Your task to perform on an android device: open device folders in google photos Image 0: 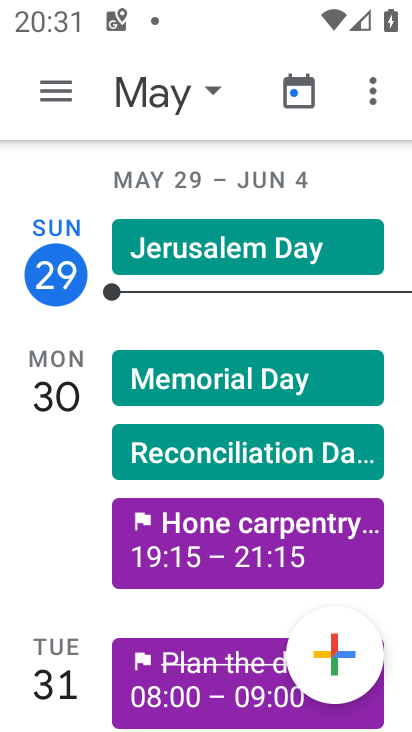
Step 0: press back button
Your task to perform on an android device: open device folders in google photos Image 1: 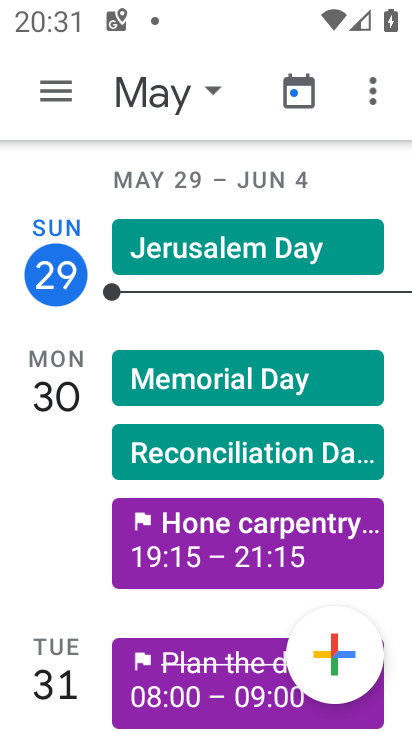
Step 1: press back button
Your task to perform on an android device: open device folders in google photos Image 2: 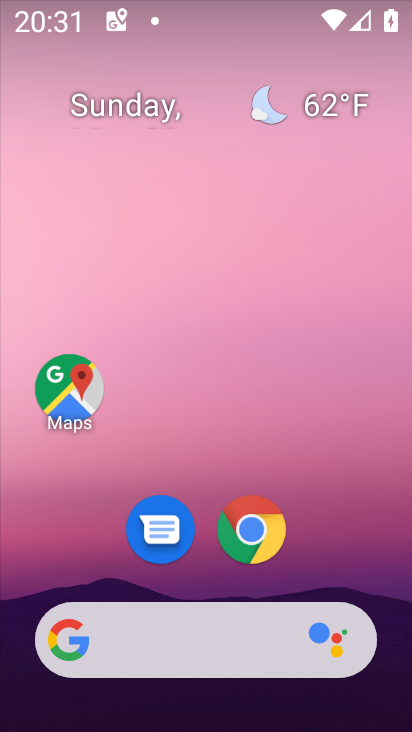
Step 2: drag from (252, 712) to (144, 218)
Your task to perform on an android device: open device folders in google photos Image 3: 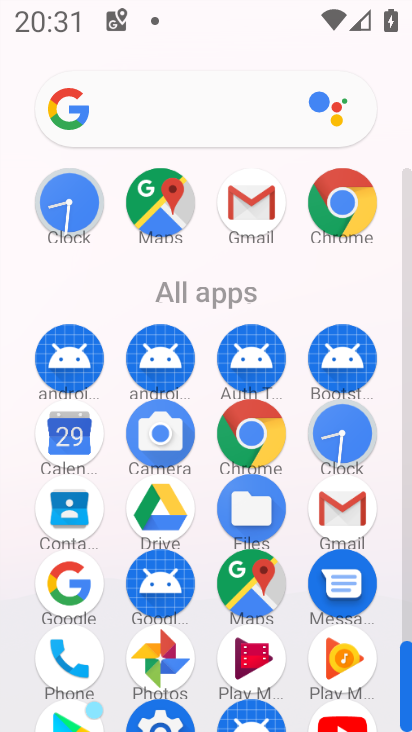
Step 3: click (150, 656)
Your task to perform on an android device: open device folders in google photos Image 4: 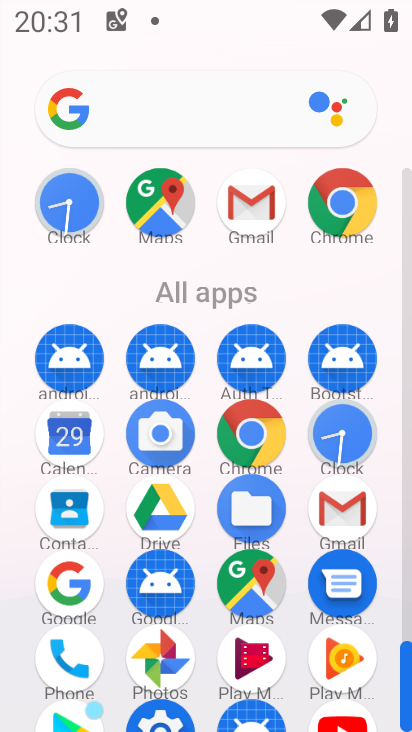
Step 4: click (150, 656)
Your task to perform on an android device: open device folders in google photos Image 5: 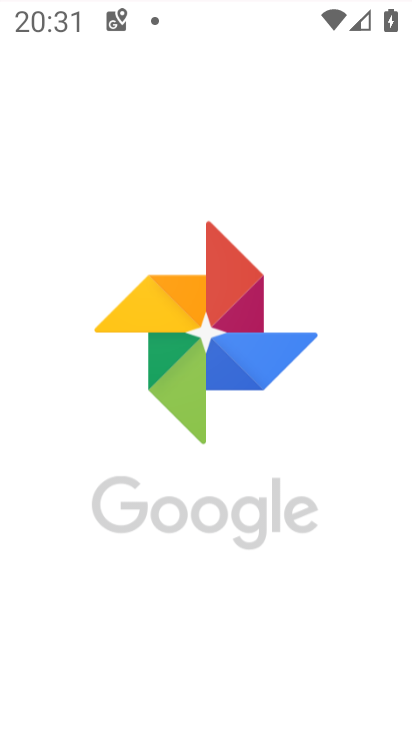
Step 5: click (152, 661)
Your task to perform on an android device: open device folders in google photos Image 6: 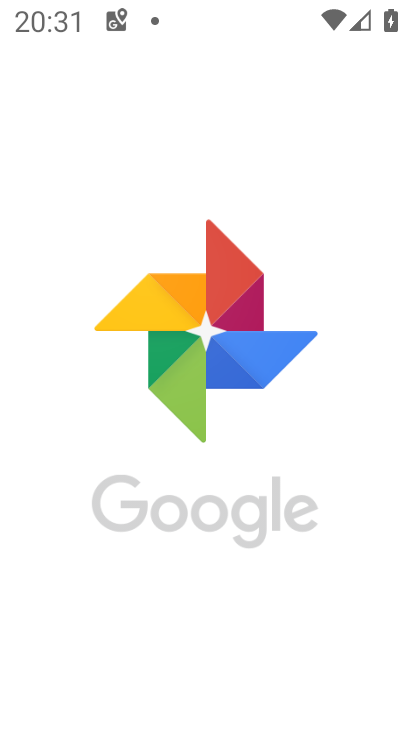
Step 6: click (154, 660)
Your task to perform on an android device: open device folders in google photos Image 7: 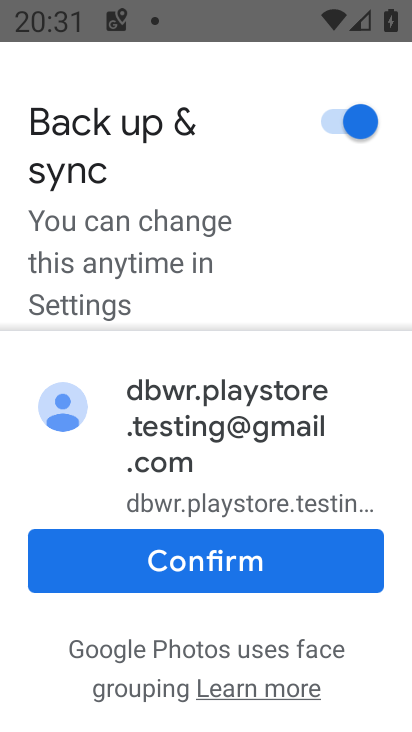
Step 7: click (232, 567)
Your task to perform on an android device: open device folders in google photos Image 8: 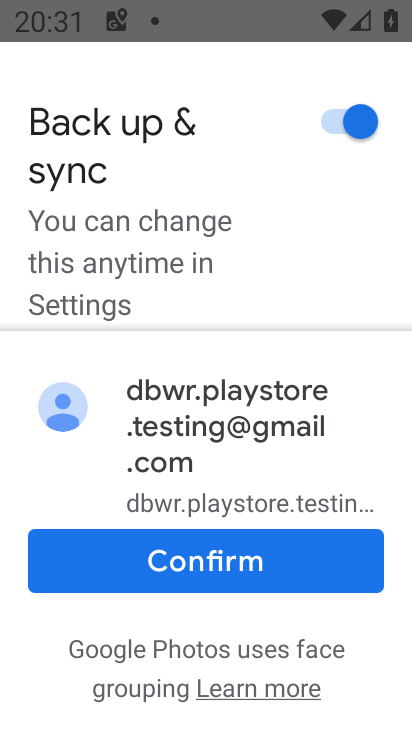
Step 8: click (232, 567)
Your task to perform on an android device: open device folders in google photos Image 9: 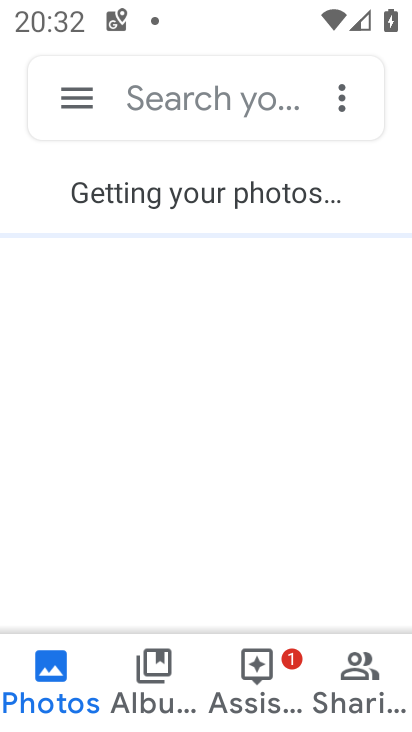
Step 9: click (85, 94)
Your task to perform on an android device: open device folders in google photos Image 10: 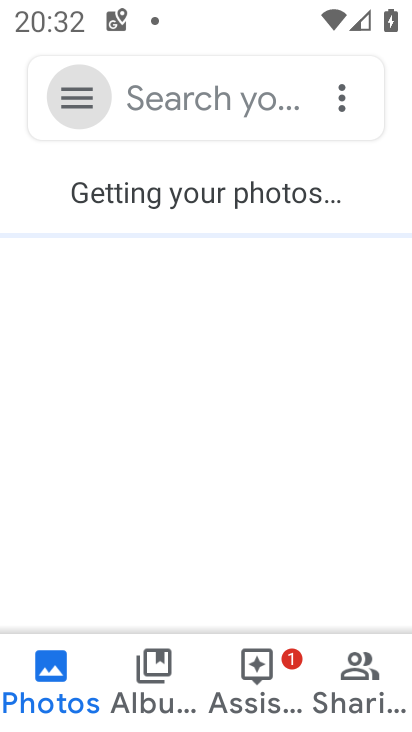
Step 10: click (84, 94)
Your task to perform on an android device: open device folders in google photos Image 11: 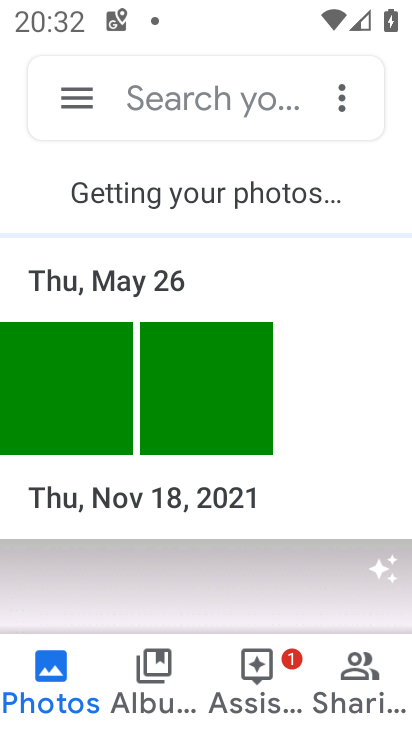
Step 11: click (76, 102)
Your task to perform on an android device: open device folders in google photos Image 12: 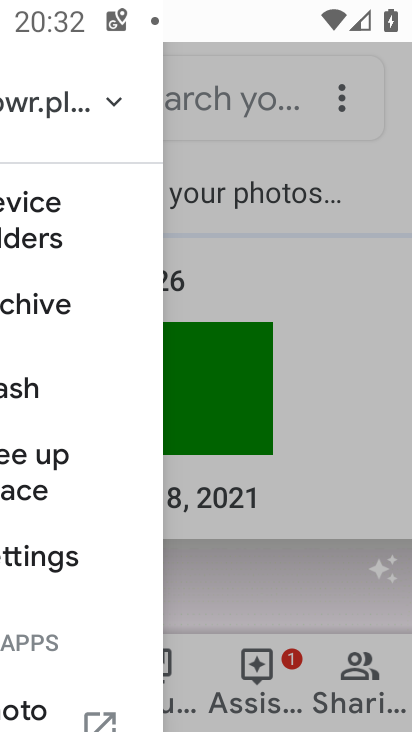
Step 12: click (76, 102)
Your task to perform on an android device: open device folders in google photos Image 13: 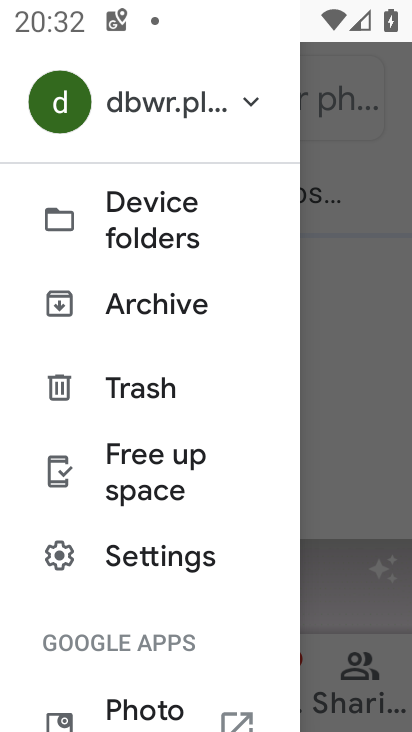
Step 13: click (77, 101)
Your task to perform on an android device: open device folders in google photos Image 14: 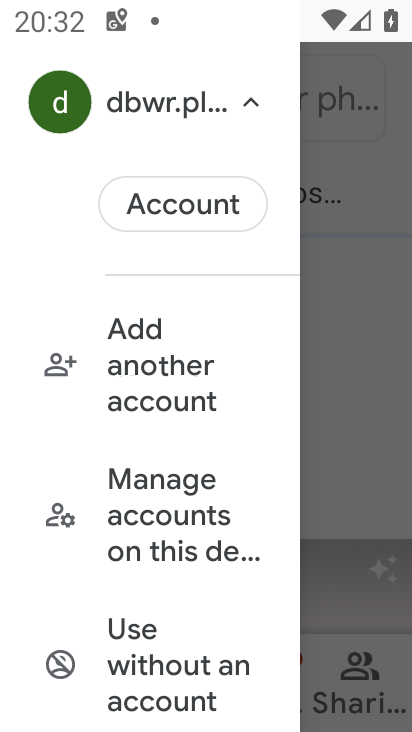
Step 14: drag from (153, 626) to (130, 350)
Your task to perform on an android device: open device folders in google photos Image 15: 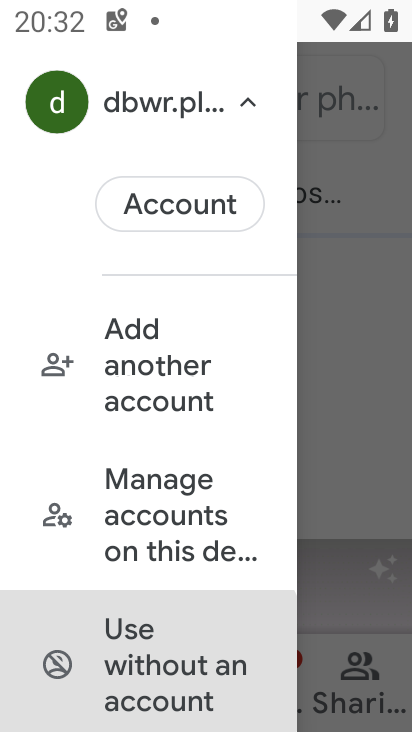
Step 15: drag from (123, 500) to (136, 257)
Your task to perform on an android device: open device folders in google photos Image 16: 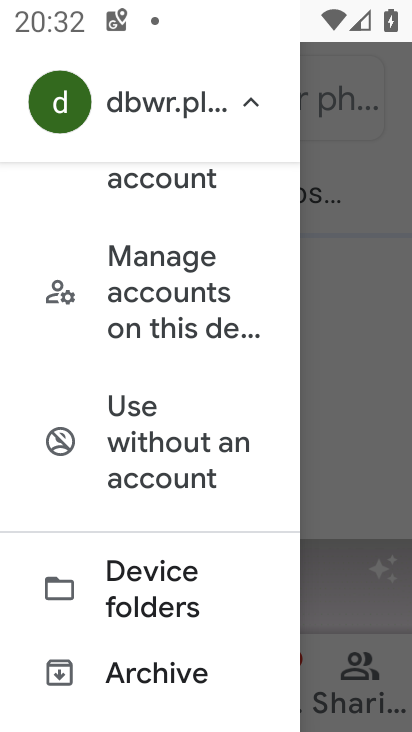
Step 16: drag from (150, 501) to (177, 233)
Your task to perform on an android device: open device folders in google photos Image 17: 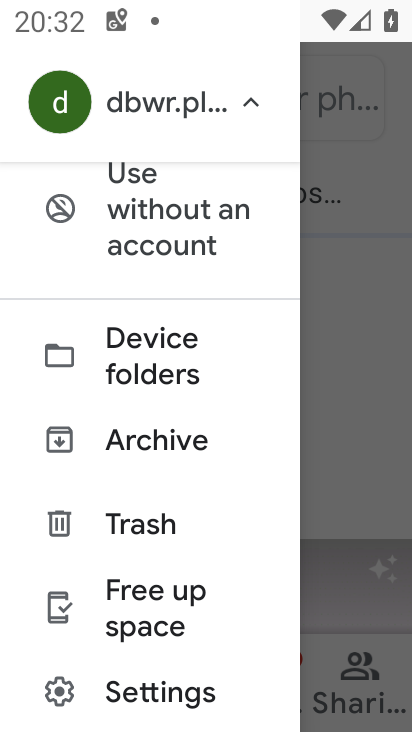
Step 17: drag from (136, 507) to (171, 269)
Your task to perform on an android device: open device folders in google photos Image 18: 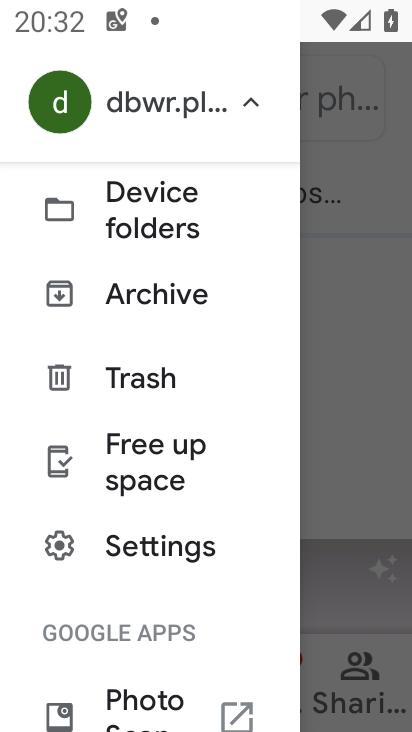
Step 18: click (145, 219)
Your task to perform on an android device: open device folders in google photos Image 19: 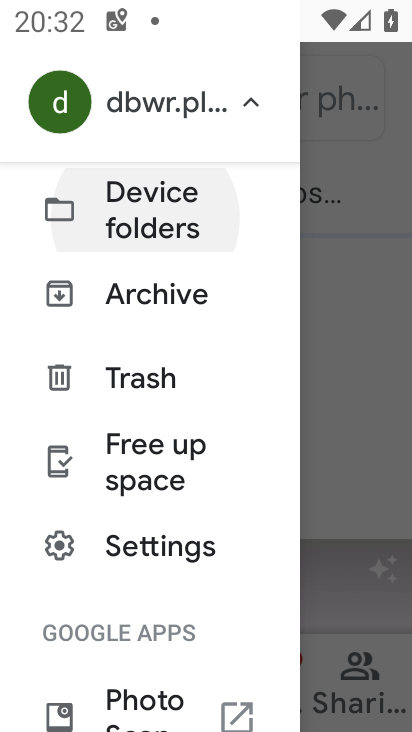
Step 19: click (146, 219)
Your task to perform on an android device: open device folders in google photos Image 20: 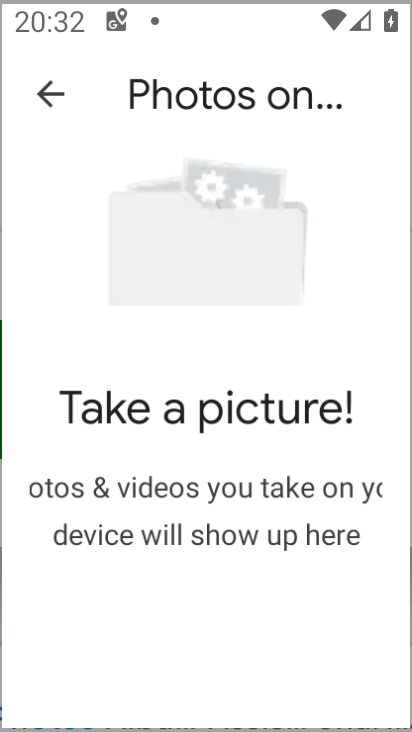
Step 20: click (146, 219)
Your task to perform on an android device: open device folders in google photos Image 21: 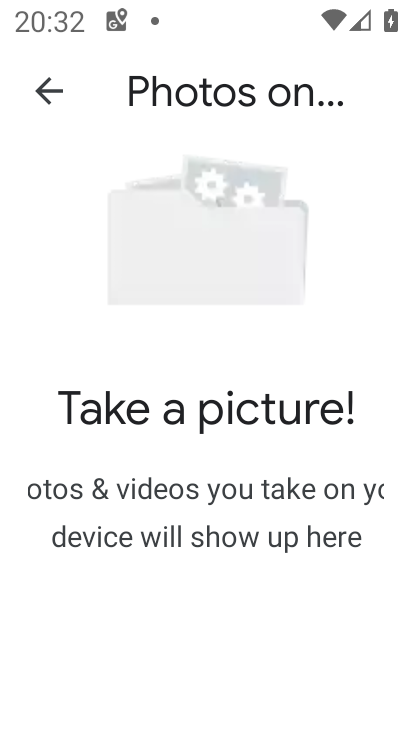
Step 21: task complete